Your task to perform on an android device: Show me the alarms in the clock app Image 0: 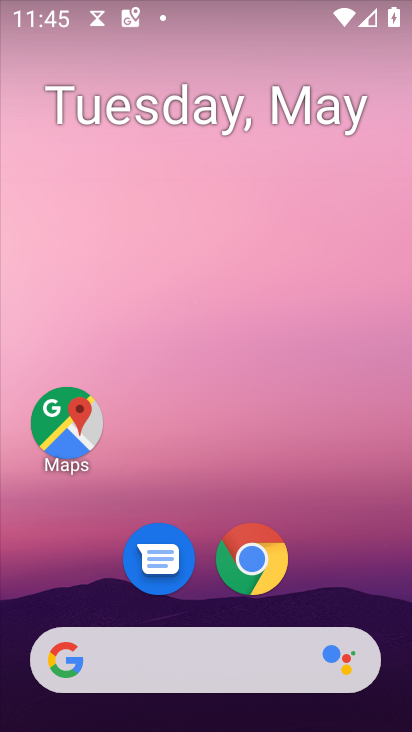
Step 0: drag from (343, 496) to (312, 56)
Your task to perform on an android device: Show me the alarms in the clock app Image 1: 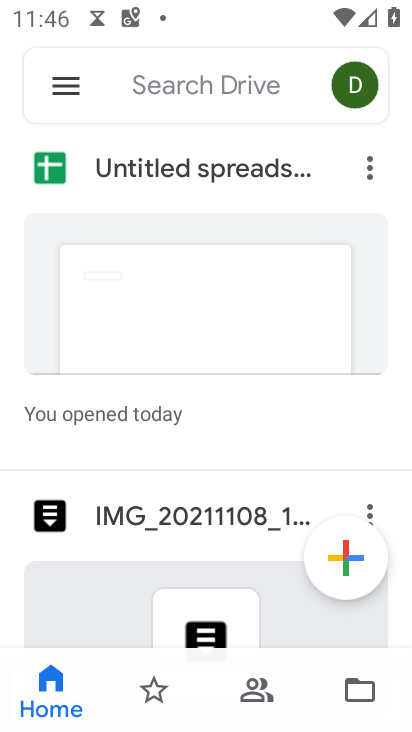
Step 1: press home button
Your task to perform on an android device: Show me the alarms in the clock app Image 2: 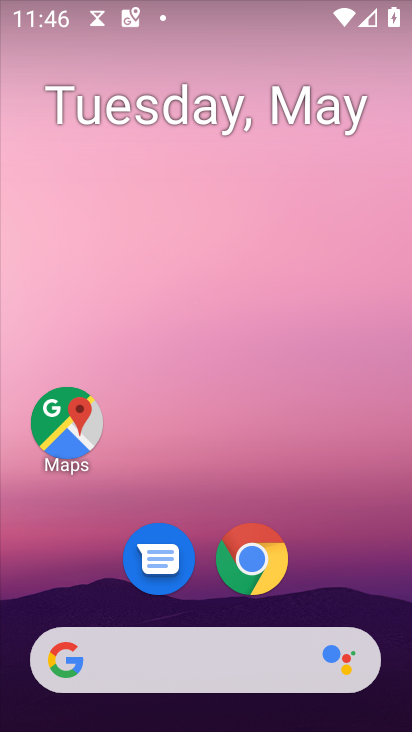
Step 2: click (281, 565)
Your task to perform on an android device: Show me the alarms in the clock app Image 3: 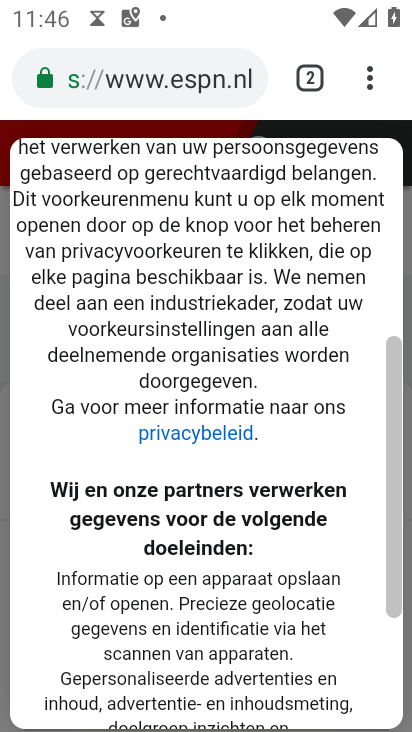
Step 3: press home button
Your task to perform on an android device: Show me the alarms in the clock app Image 4: 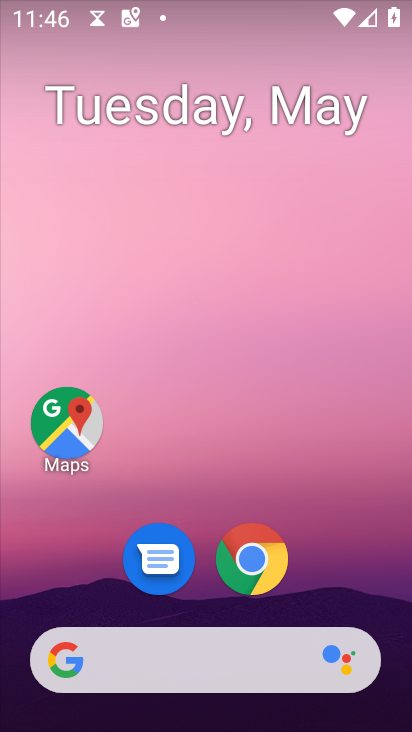
Step 4: drag from (349, 573) to (244, 11)
Your task to perform on an android device: Show me the alarms in the clock app Image 5: 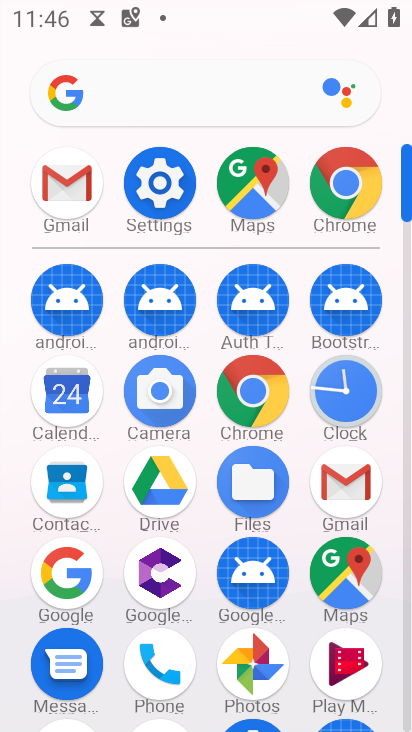
Step 5: click (329, 417)
Your task to perform on an android device: Show me the alarms in the clock app Image 6: 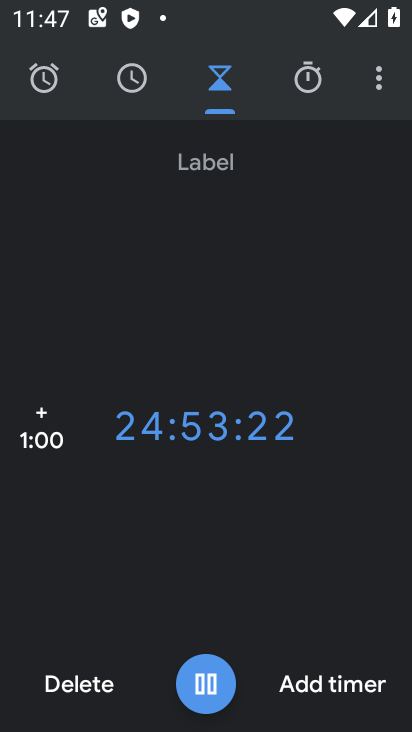
Step 6: click (33, 91)
Your task to perform on an android device: Show me the alarms in the clock app Image 7: 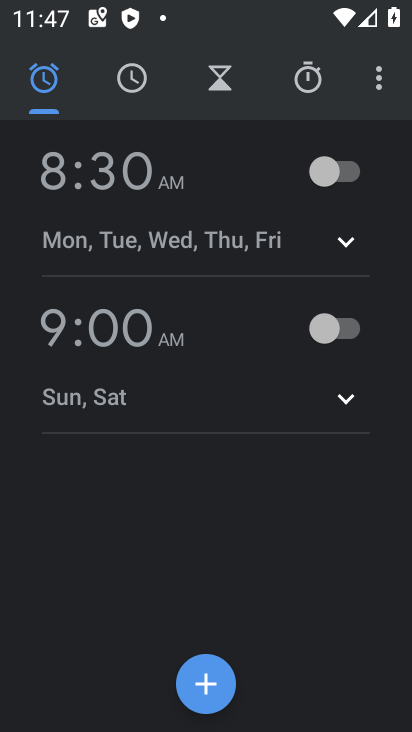
Step 7: click (325, 170)
Your task to perform on an android device: Show me the alarms in the clock app Image 8: 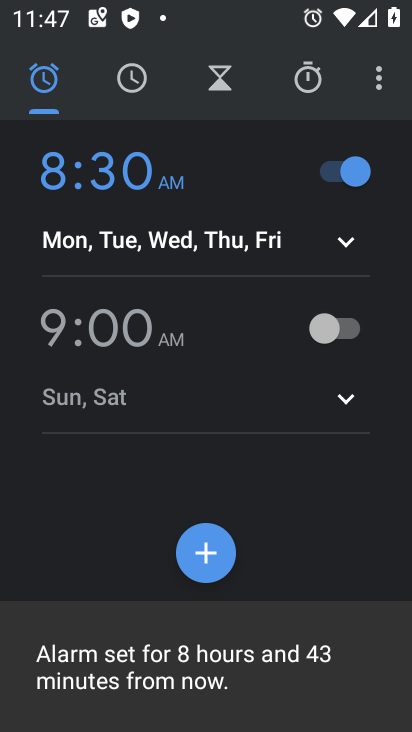
Step 8: task complete